Your task to perform on an android device: Go to Amazon Image 0: 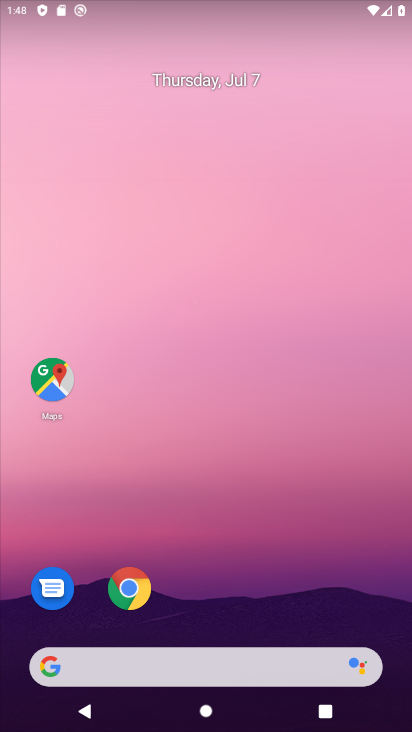
Step 0: drag from (398, 672) to (383, 128)
Your task to perform on an android device: Go to Amazon Image 1: 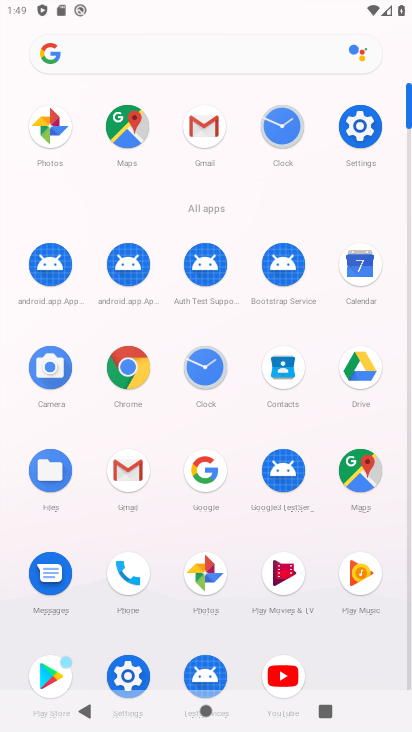
Step 1: click (408, 666)
Your task to perform on an android device: Go to Amazon Image 2: 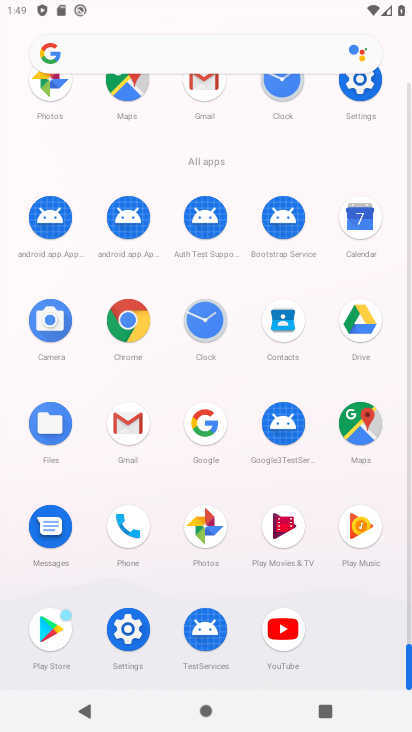
Step 2: click (128, 322)
Your task to perform on an android device: Go to Amazon Image 3: 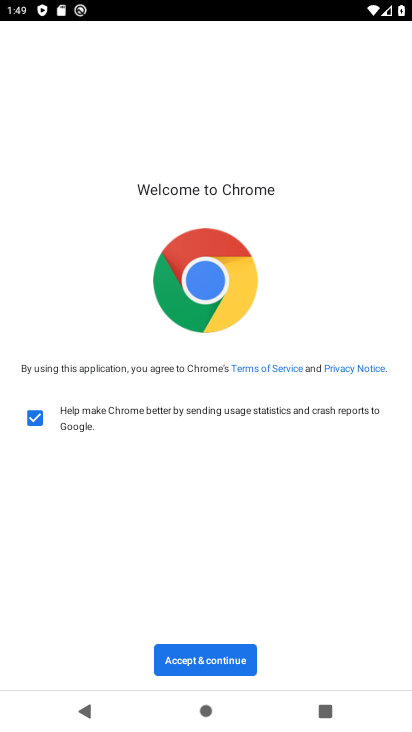
Step 3: click (212, 659)
Your task to perform on an android device: Go to Amazon Image 4: 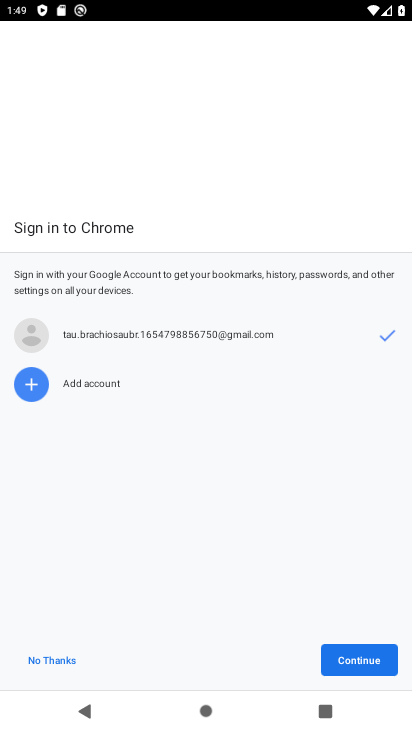
Step 4: click (361, 661)
Your task to perform on an android device: Go to Amazon Image 5: 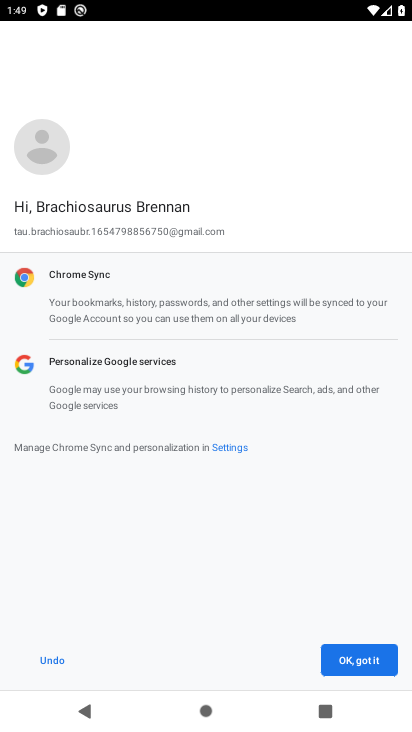
Step 5: click (361, 661)
Your task to perform on an android device: Go to Amazon Image 6: 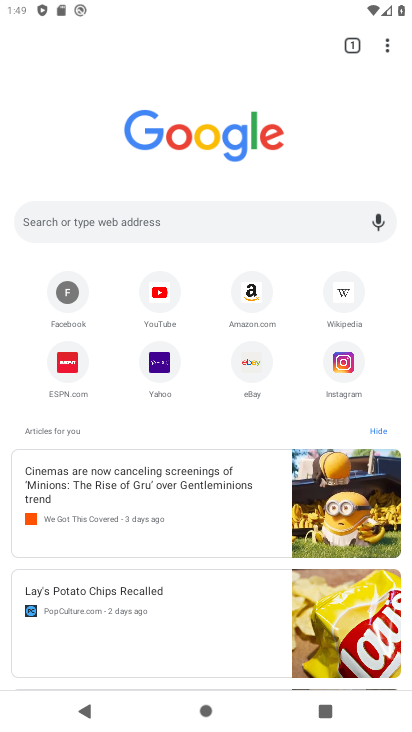
Step 6: click (246, 293)
Your task to perform on an android device: Go to Amazon Image 7: 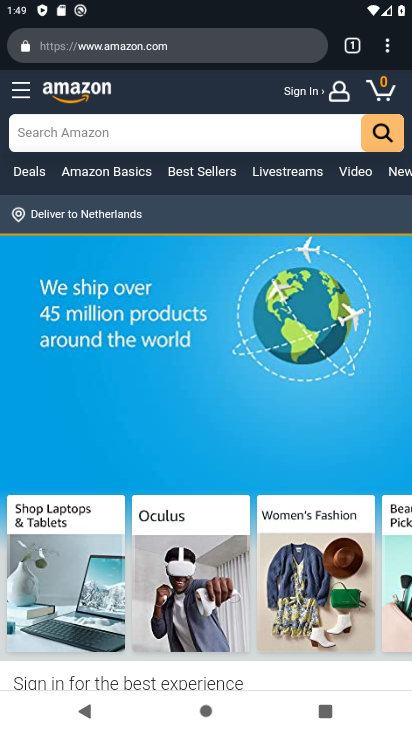
Step 7: task complete